Your task to perform on an android device: open app "Google Calendar" Image 0: 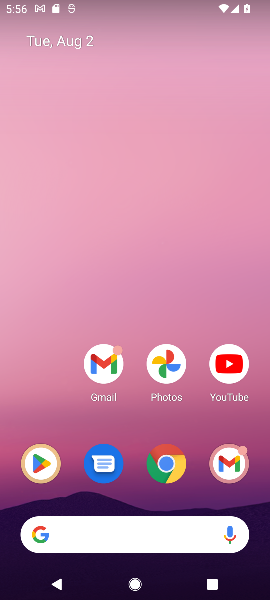
Step 0: click (37, 460)
Your task to perform on an android device: open app "Google Calendar" Image 1: 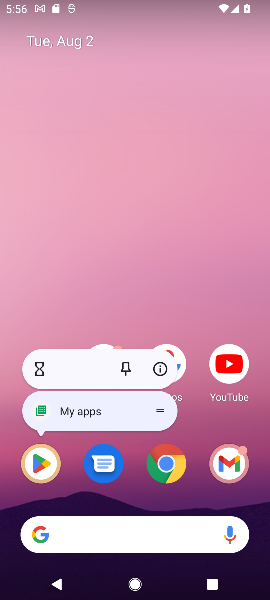
Step 1: click (37, 460)
Your task to perform on an android device: open app "Google Calendar" Image 2: 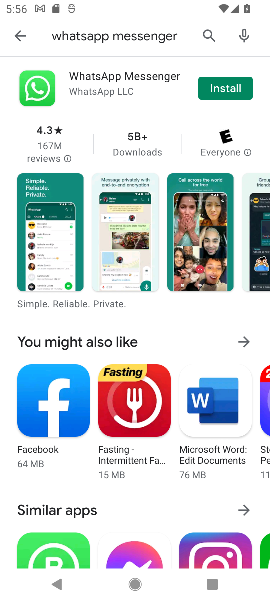
Step 2: click (210, 32)
Your task to perform on an android device: open app "Google Calendar" Image 3: 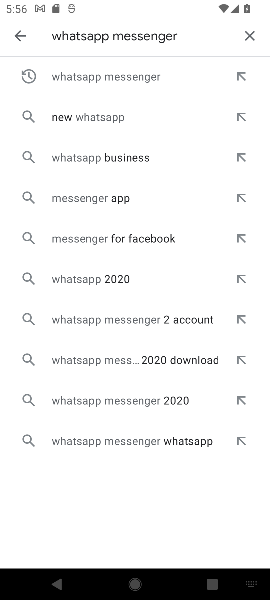
Step 3: click (245, 29)
Your task to perform on an android device: open app "Google Calendar" Image 4: 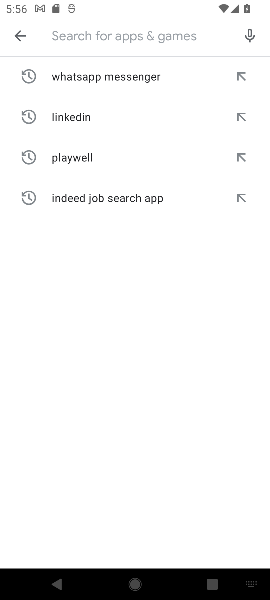
Step 4: type "Google Calendar"
Your task to perform on an android device: open app "Google Calendar" Image 5: 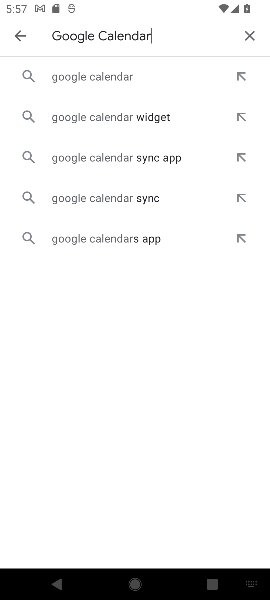
Step 5: click (123, 75)
Your task to perform on an android device: open app "Google Calendar" Image 6: 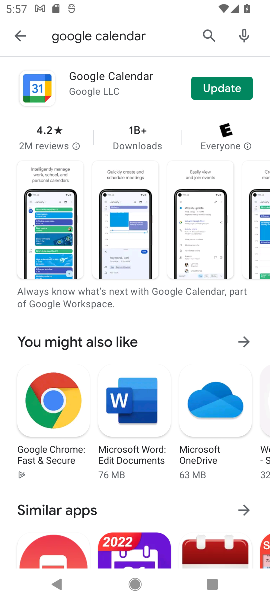
Step 6: click (92, 83)
Your task to perform on an android device: open app "Google Calendar" Image 7: 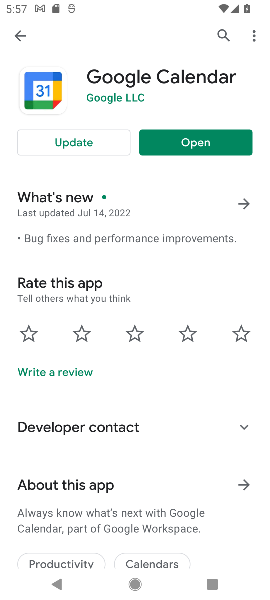
Step 7: click (194, 146)
Your task to perform on an android device: open app "Google Calendar" Image 8: 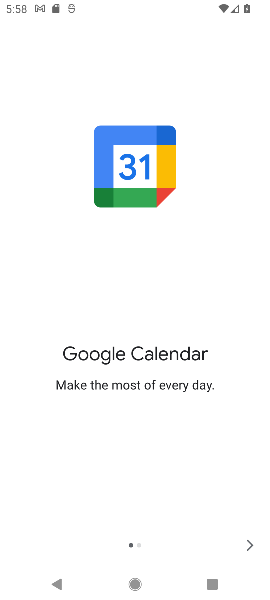
Step 8: task complete